Your task to perform on an android device: Go to Google Image 0: 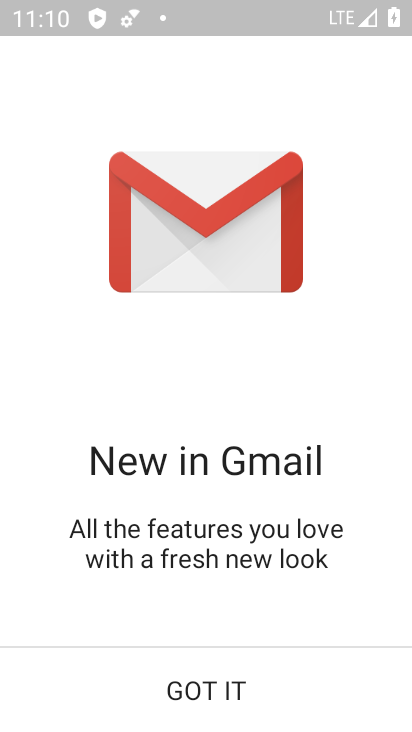
Step 0: press home button
Your task to perform on an android device: Go to Google Image 1: 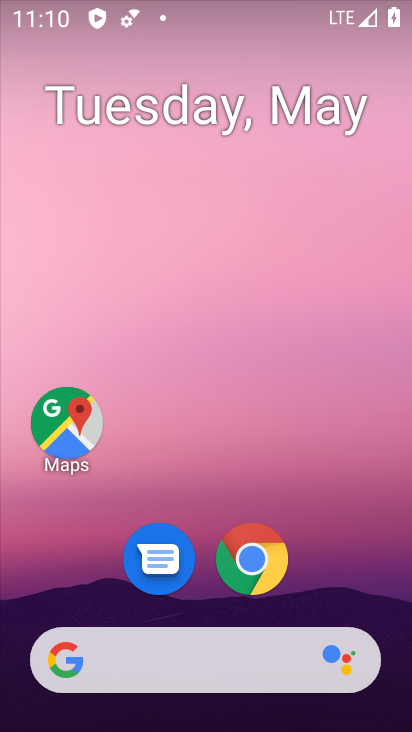
Step 1: drag from (377, 588) to (349, 118)
Your task to perform on an android device: Go to Google Image 2: 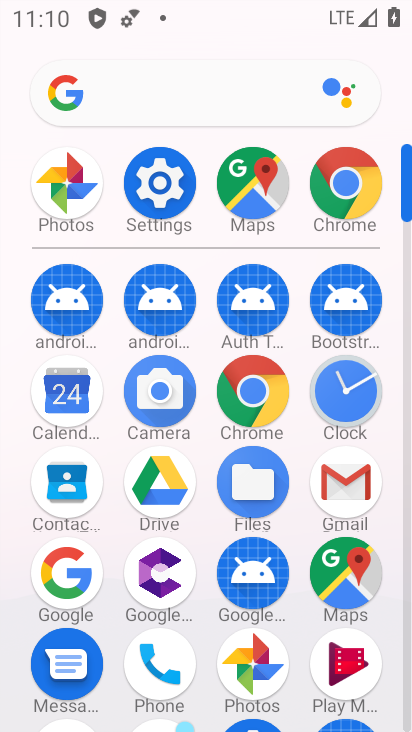
Step 2: click (52, 597)
Your task to perform on an android device: Go to Google Image 3: 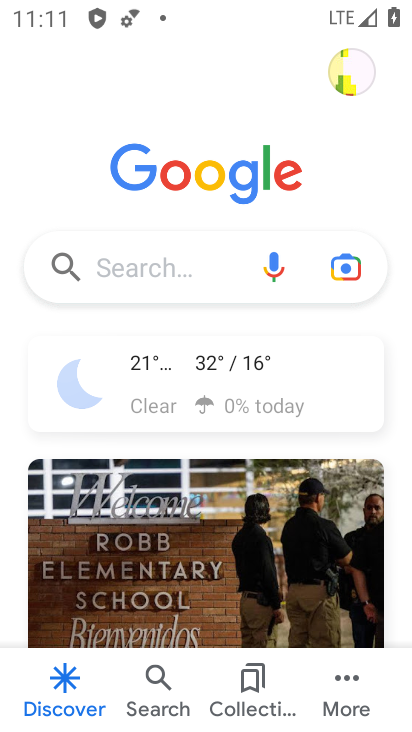
Step 3: task complete